Your task to perform on an android device: Open calendar and show me the third week of next month Image 0: 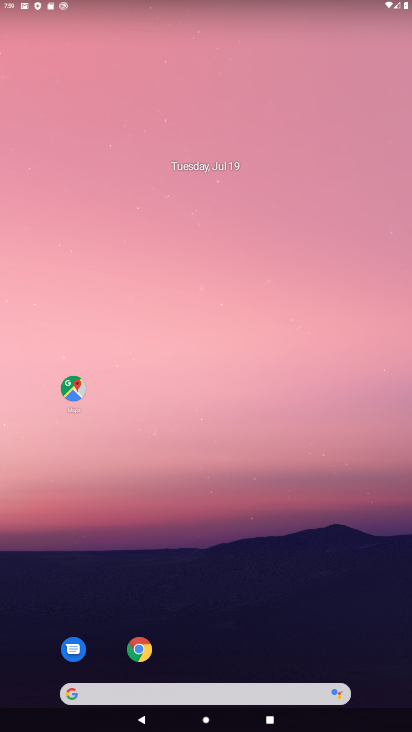
Step 0: drag from (274, 695) to (272, 52)
Your task to perform on an android device: Open calendar and show me the third week of next month Image 1: 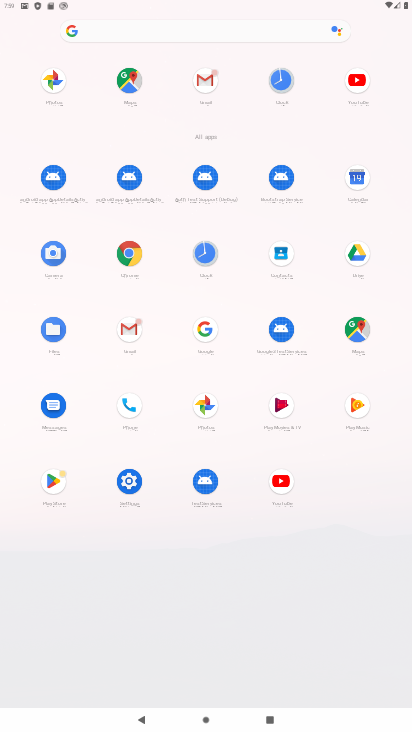
Step 1: click (353, 179)
Your task to perform on an android device: Open calendar and show me the third week of next month Image 2: 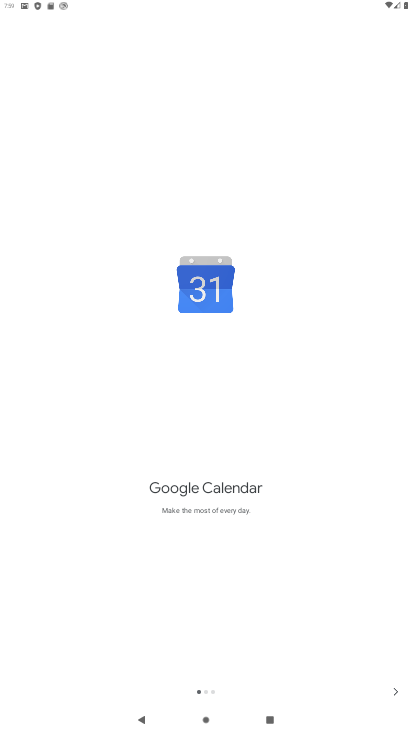
Step 2: click (396, 692)
Your task to perform on an android device: Open calendar and show me the third week of next month Image 3: 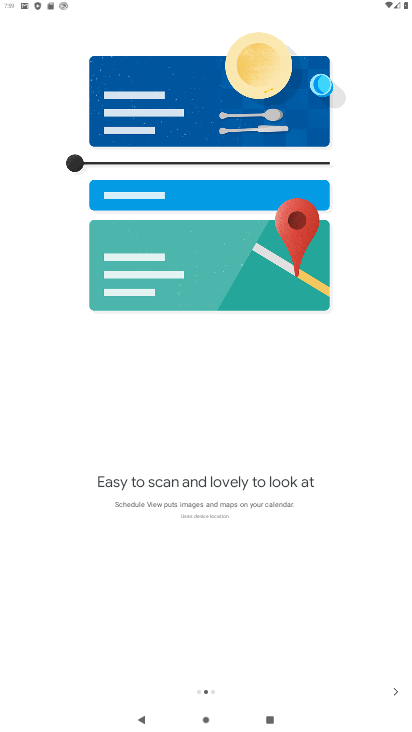
Step 3: click (396, 692)
Your task to perform on an android device: Open calendar and show me the third week of next month Image 4: 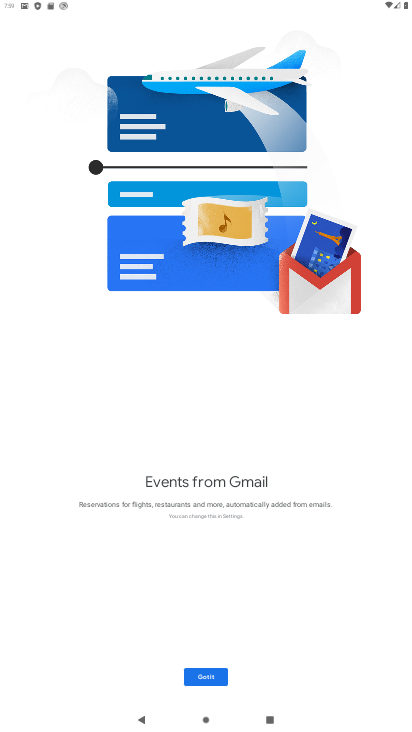
Step 4: click (205, 668)
Your task to perform on an android device: Open calendar and show me the third week of next month Image 5: 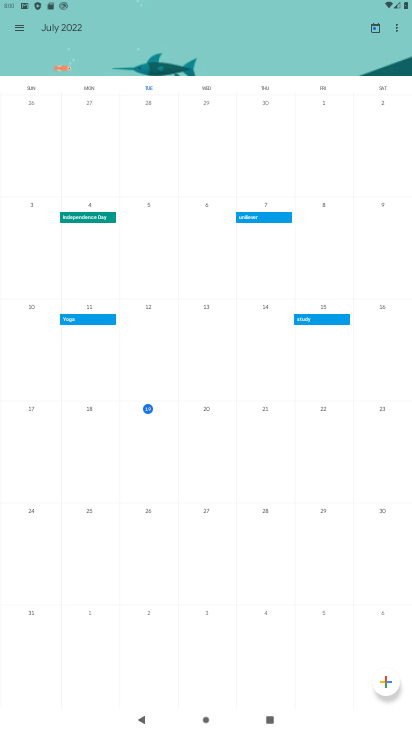
Step 5: drag from (365, 224) to (23, 226)
Your task to perform on an android device: Open calendar and show me the third week of next month Image 6: 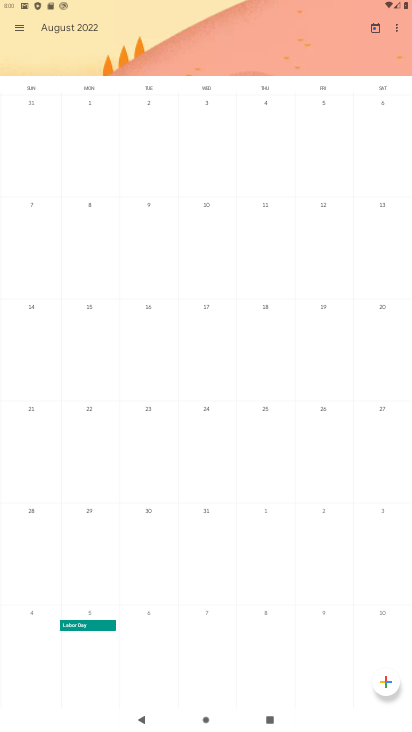
Step 6: click (206, 312)
Your task to perform on an android device: Open calendar and show me the third week of next month Image 7: 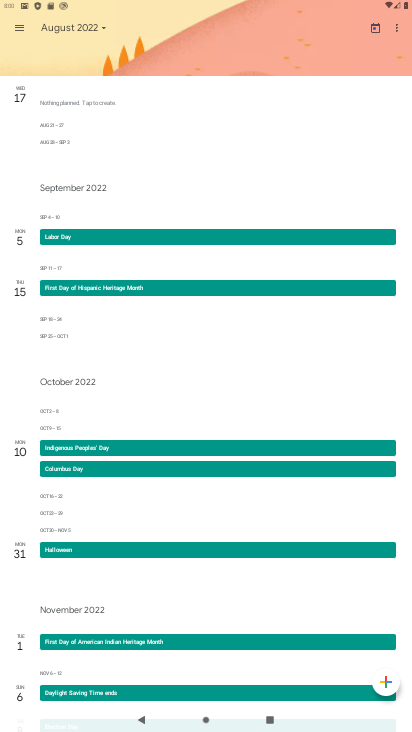
Step 7: click (16, 24)
Your task to perform on an android device: Open calendar and show me the third week of next month Image 8: 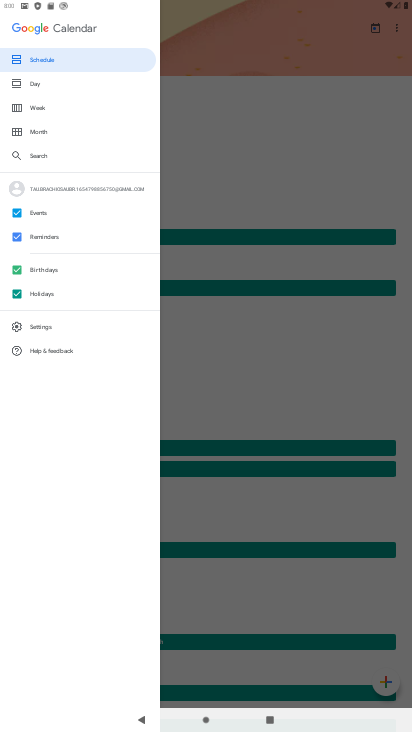
Step 8: click (29, 101)
Your task to perform on an android device: Open calendar and show me the third week of next month Image 9: 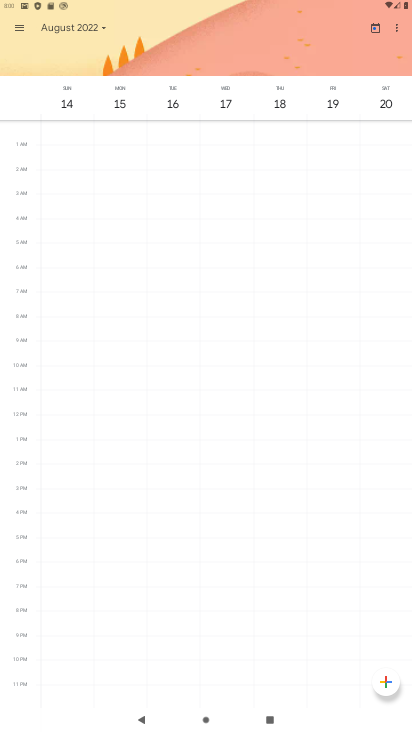
Step 9: task complete